Your task to perform on an android device: Open settings on Google Maps Image 0: 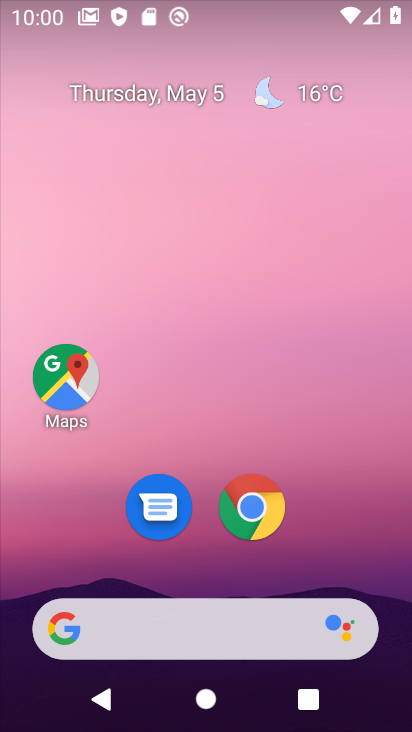
Step 0: click (166, 597)
Your task to perform on an android device: Open settings on Google Maps Image 1: 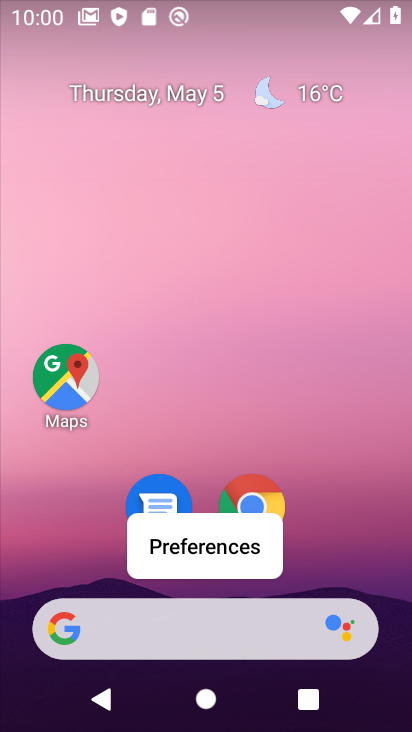
Step 1: click (58, 378)
Your task to perform on an android device: Open settings on Google Maps Image 2: 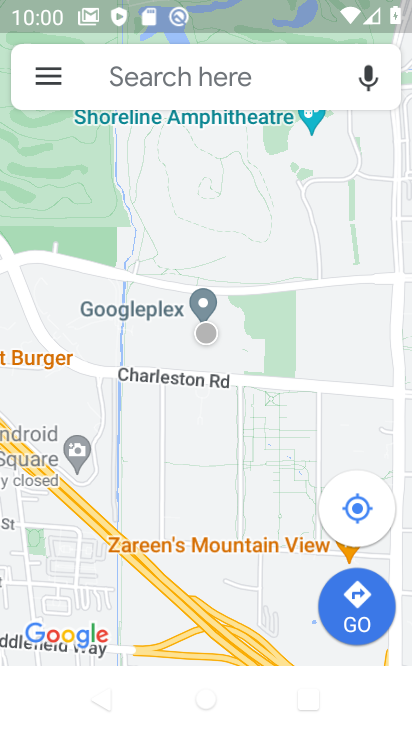
Step 2: click (50, 74)
Your task to perform on an android device: Open settings on Google Maps Image 3: 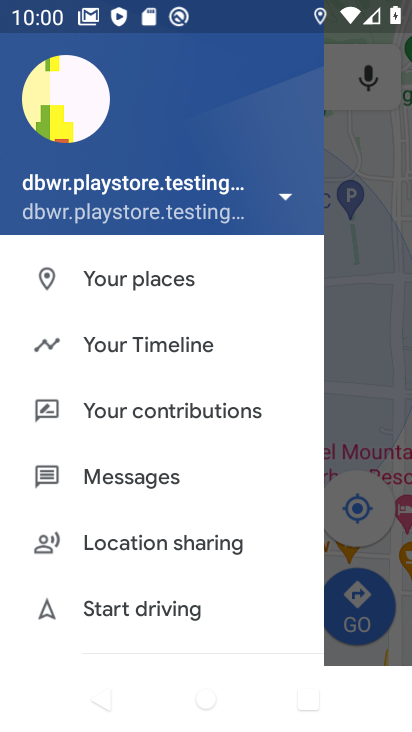
Step 3: drag from (155, 570) to (206, 190)
Your task to perform on an android device: Open settings on Google Maps Image 4: 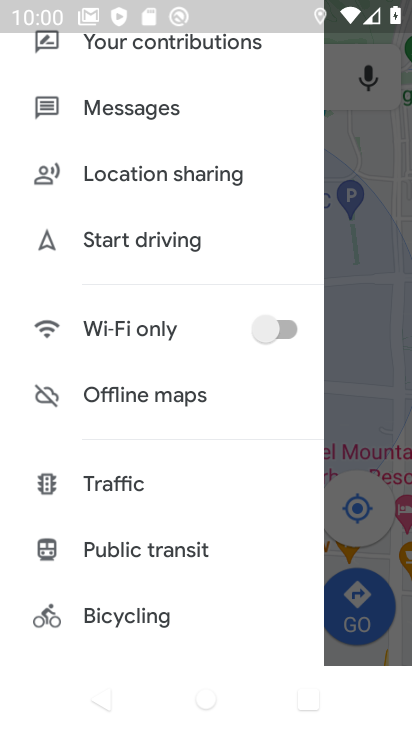
Step 4: drag from (136, 563) to (193, 156)
Your task to perform on an android device: Open settings on Google Maps Image 5: 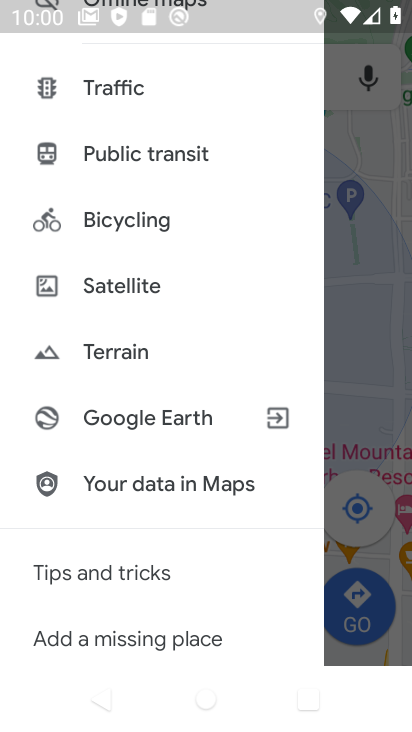
Step 5: drag from (125, 614) to (199, 278)
Your task to perform on an android device: Open settings on Google Maps Image 6: 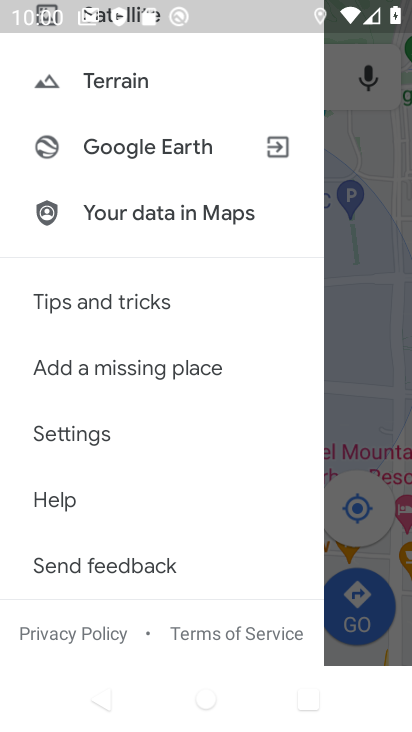
Step 6: click (98, 434)
Your task to perform on an android device: Open settings on Google Maps Image 7: 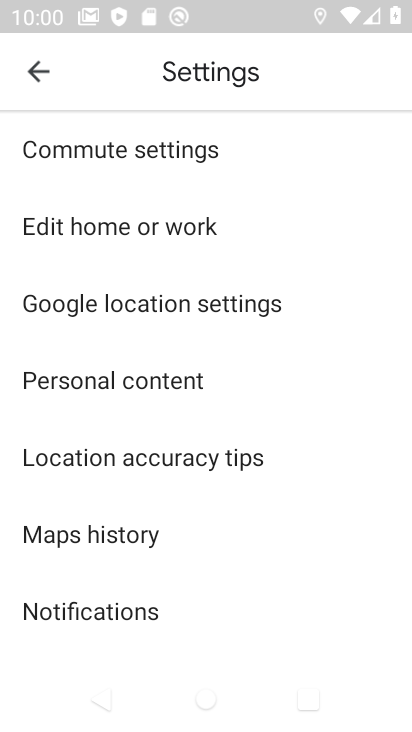
Step 7: task complete